Your task to perform on an android device: Open Google Chrome and click the shortcut for Amazon.com Image 0: 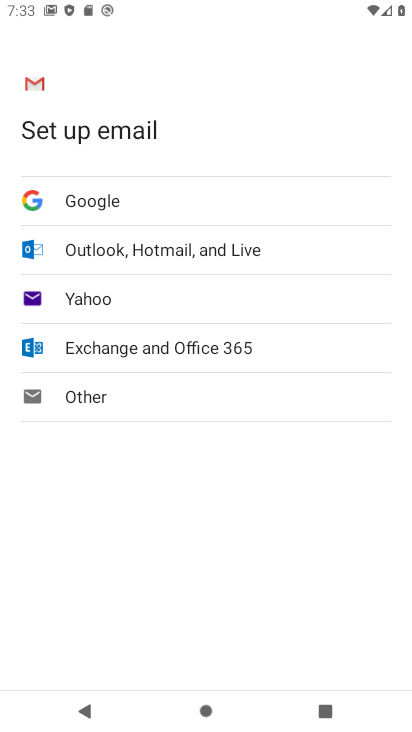
Step 0: press home button
Your task to perform on an android device: Open Google Chrome and click the shortcut for Amazon.com Image 1: 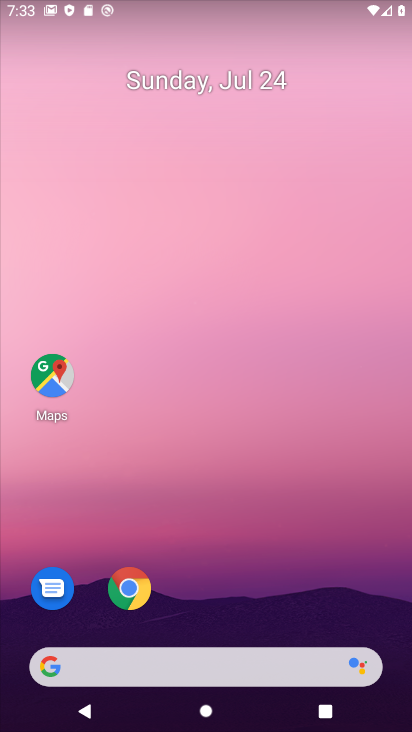
Step 1: drag from (234, 461) to (272, 0)
Your task to perform on an android device: Open Google Chrome and click the shortcut for Amazon.com Image 2: 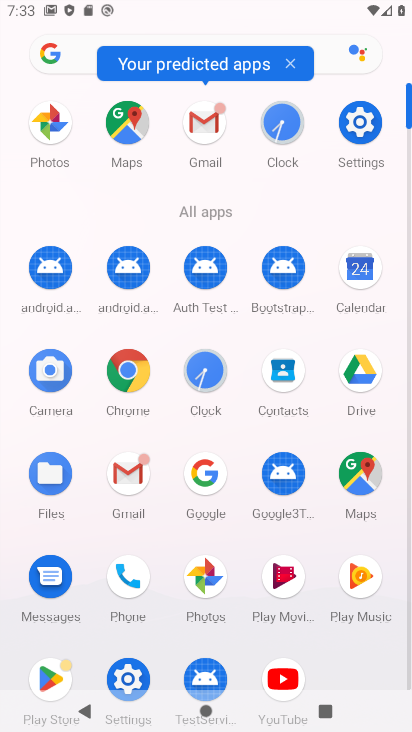
Step 2: click (132, 370)
Your task to perform on an android device: Open Google Chrome and click the shortcut for Amazon.com Image 3: 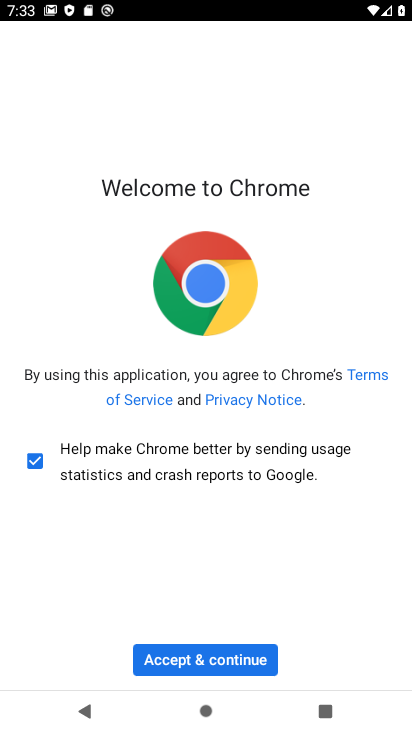
Step 3: click (219, 658)
Your task to perform on an android device: Open Google Chrome and click the shortcut for Amazon.com Image 4: 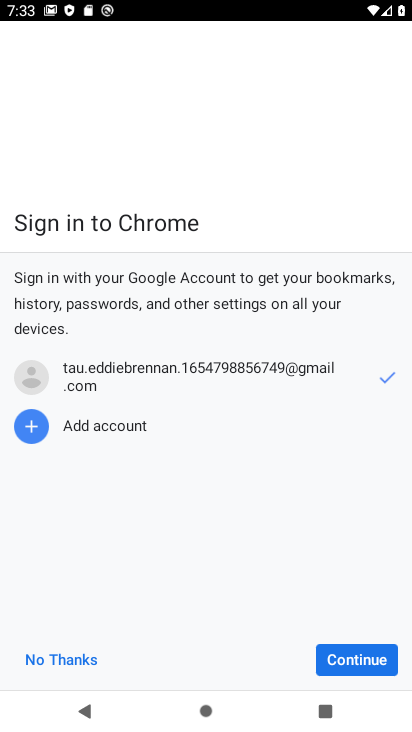
Step 4: click (85, 661)
Your task to perform on an android device: Open Google Chrome and click the shortcut for Amazon.com Image 5: 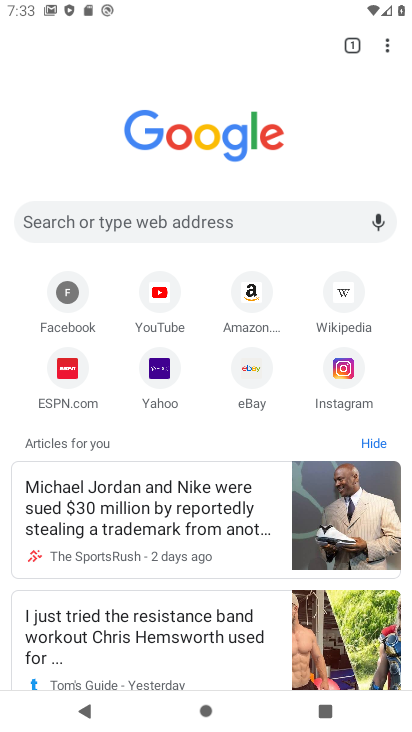
Step 5: click (250, 293)
Your task to perform on an android device: Open Google Chrome and click the shortcut for Amazon.com Image 6: 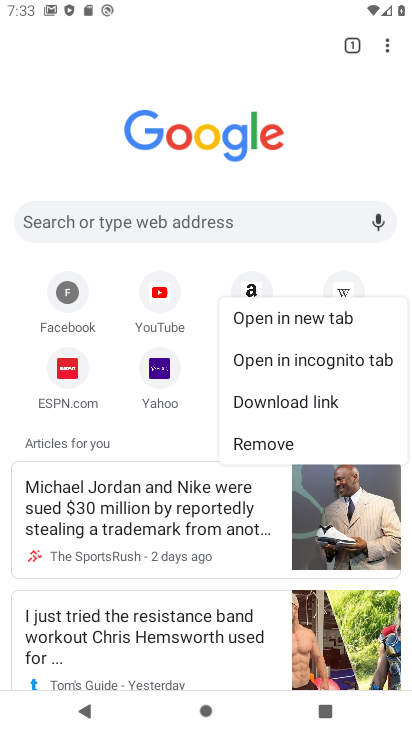
Step 6: click (250, 292)
Your task to perform on an android device: Open Google Chrome and click the shortcut for Amazon.com Image 7: 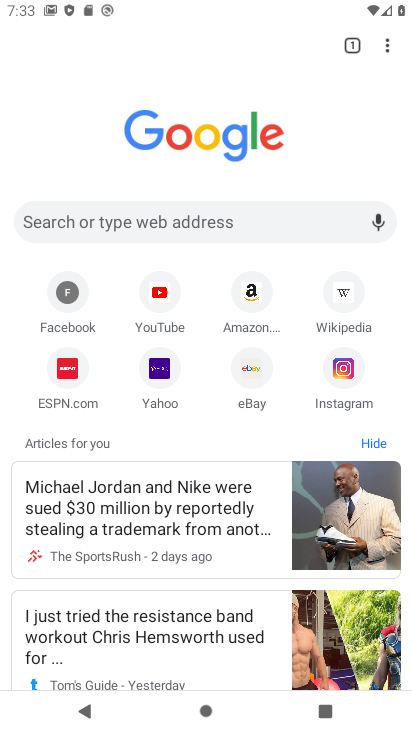
Step 7: click (253, 302)
Your task to perform on an android device: Open Google Chrome and click the shortcut for Amazon.com Image 8: 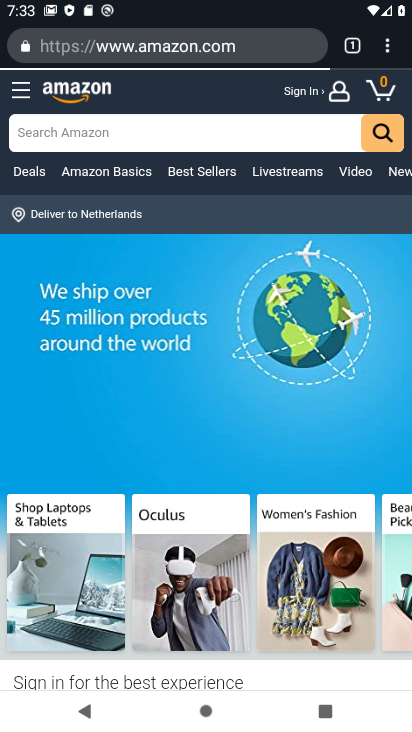
Step 8: drag from (388, 51) to (275, 418)
Your task to perform on an android device: Open Google Chrome and click the shortcut for Amazon.com Image 9: 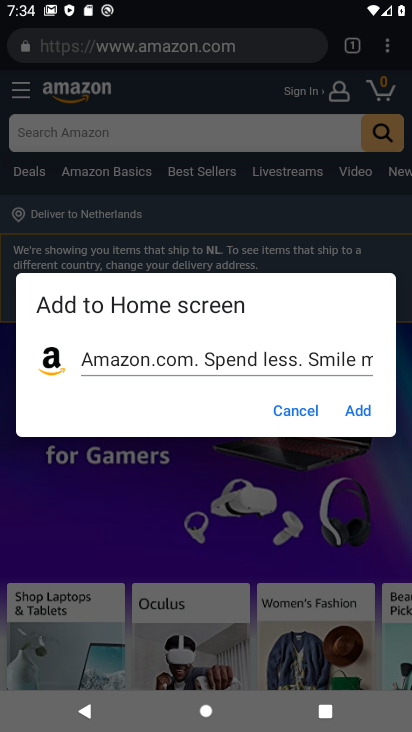
Step 9: click (357, 409)
Your task to perform on an android device: Open Google Chrome and click the shortcut for Amazon.com Image 10: 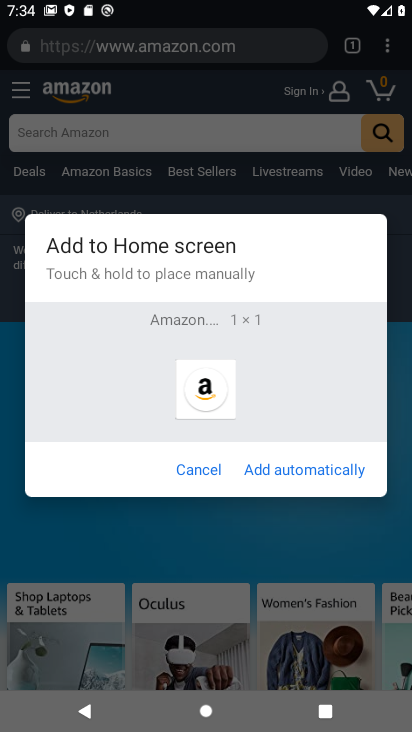
Step 10: click (322, 465)
Your task to perform on an android device: Open Google Chrome and click the shortcut for Amazon.com Image 11: 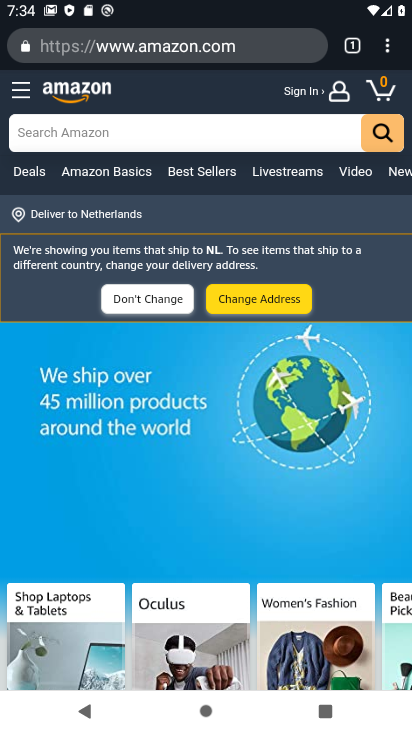
Step 11: click (196, 712)
Your task to perform on an android device: Open Google Chrome and click the shortcut for Amazon.com Image 12: 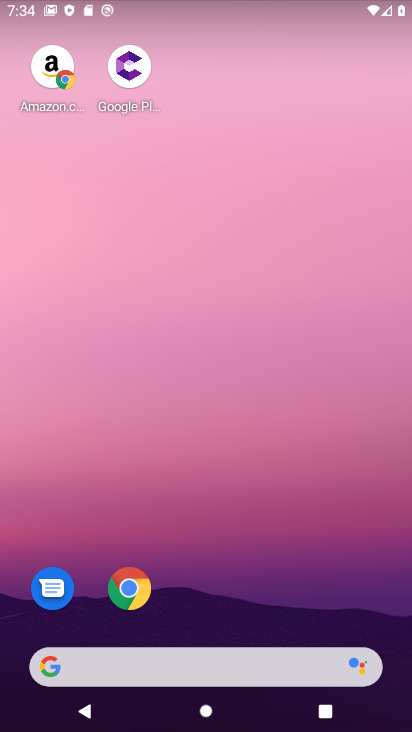
Step 12: task complete